Your task to perform on an android device: refresh tabs in the chrome app Image 0: 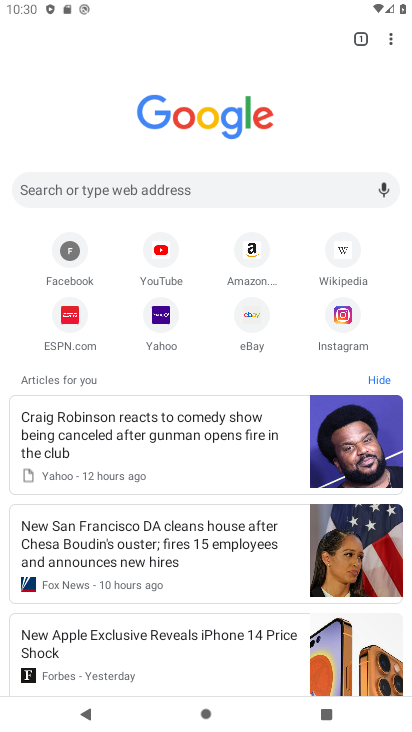
Step 0: click (390, 48)
Your task to perform on an android device: refresh tabs in the chrome app Image 1: 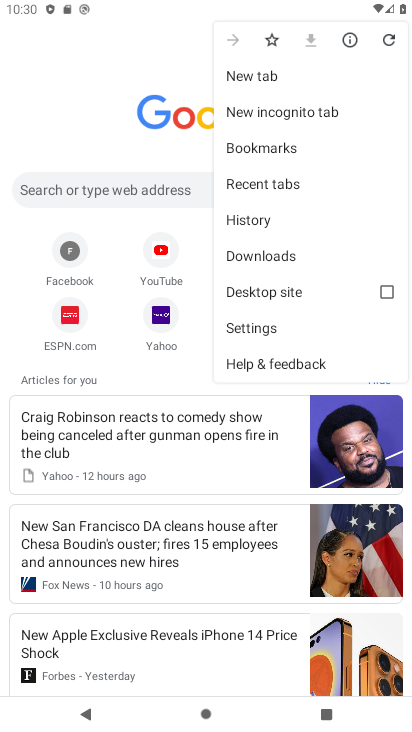
Step 1: click (387, 46)
Your task to perform on an android device: refresh tabs in the chrome app Image 2: 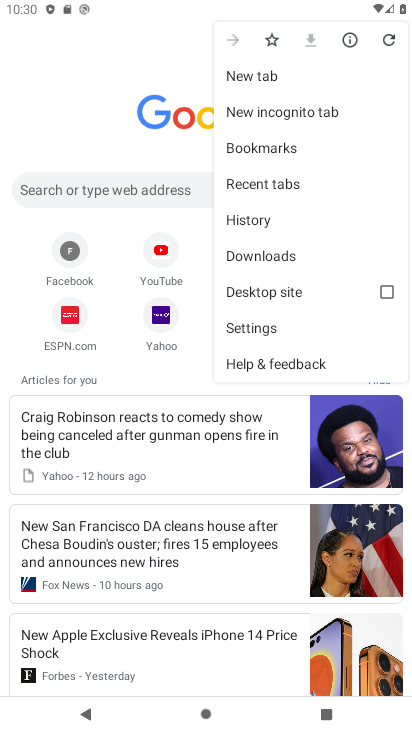
Step 2: task complete